Your task to perform on an android device: Search for pizza restaurants on Maps Image 0: 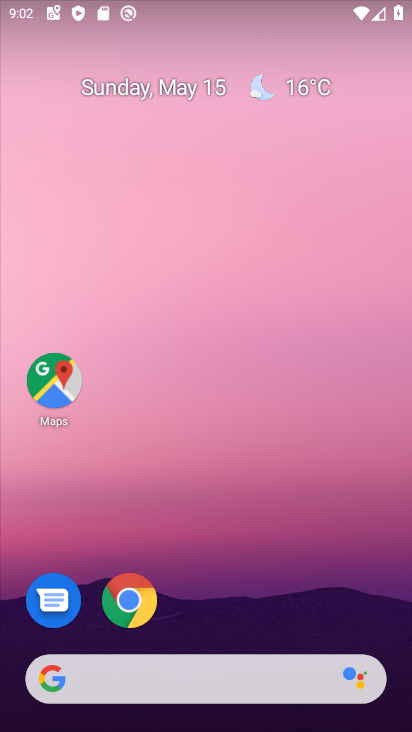
Step 0: click (58, 374)
Your task to perform on an android device: Search for pizza restaurants on Maps Image 1: 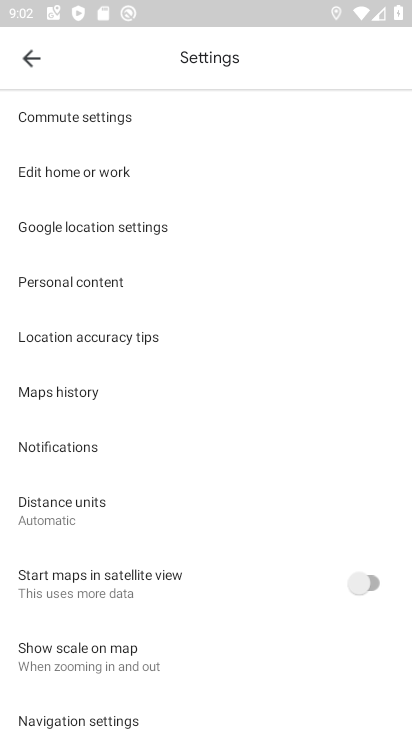
Step 1: press back button
Your task to perform on an android device: Search for pizza restaurants on Maps Image 2: 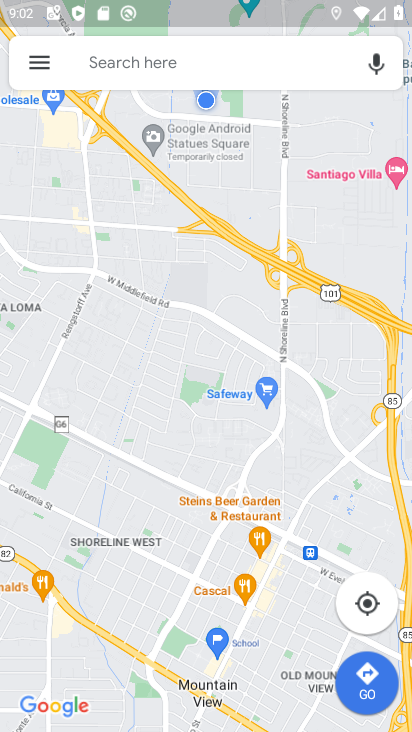
Step 2: drag from (365, 108) to (250, 2)
Your task to perform on an android device: Search for pizza restaurants on Maps Image 3: 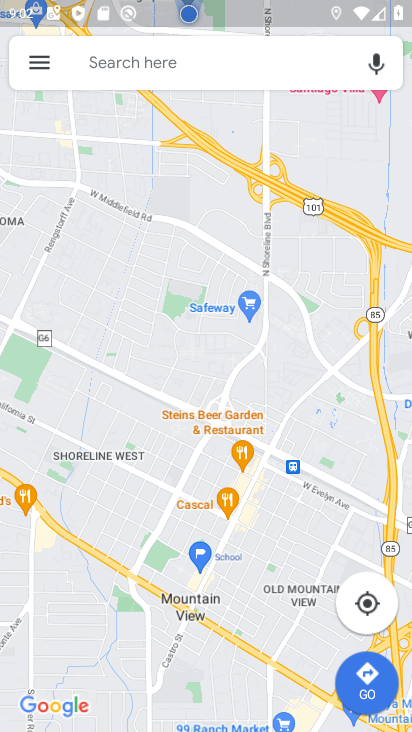
Step 3: click (224, 49)
Your task to perform on an android device: Search for pizza restaurants on Maps Image 4: 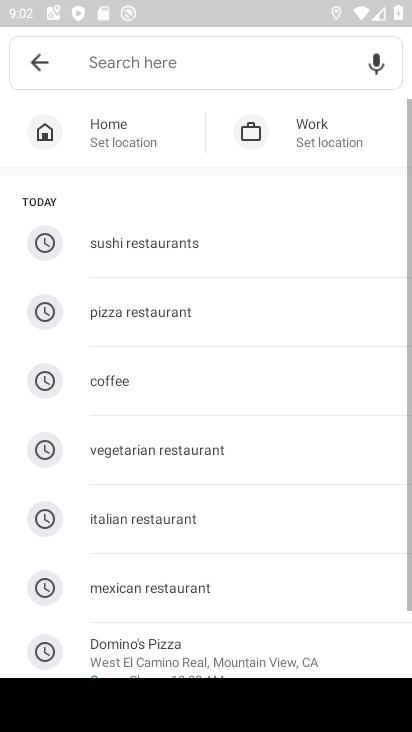
Step 4: click (186, 310)
Your task to perform on an android device: Search for pizza restaurants on Maps Image 5: 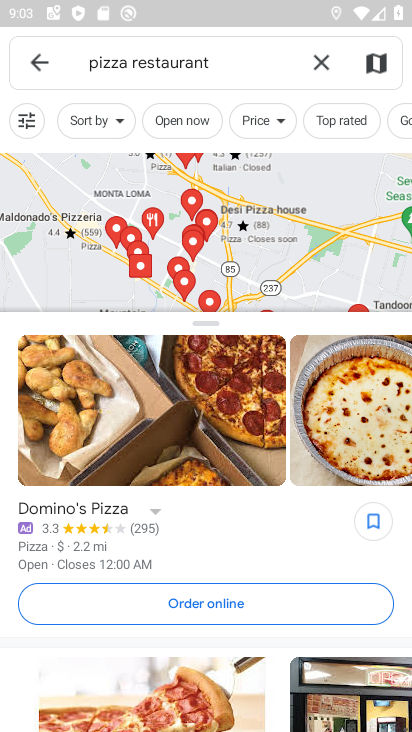
Step 5: task complete